Your task to perform on an android device: open device folders in google photos Image 0: 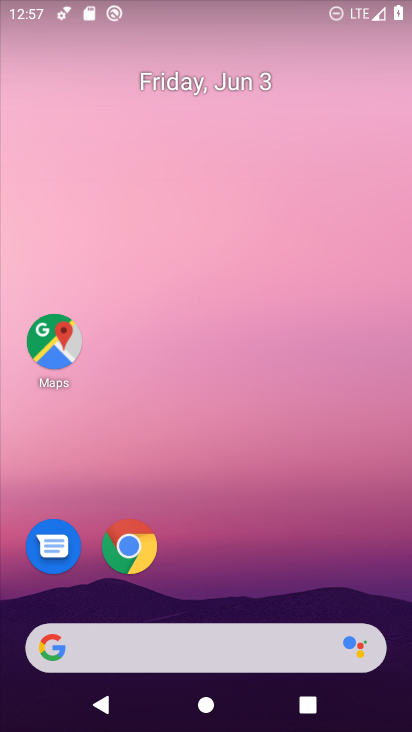
Step 0: drag from (291, 561) to (259, 216)
Your task to perform on an android device: open device folders in google photos Image 1: 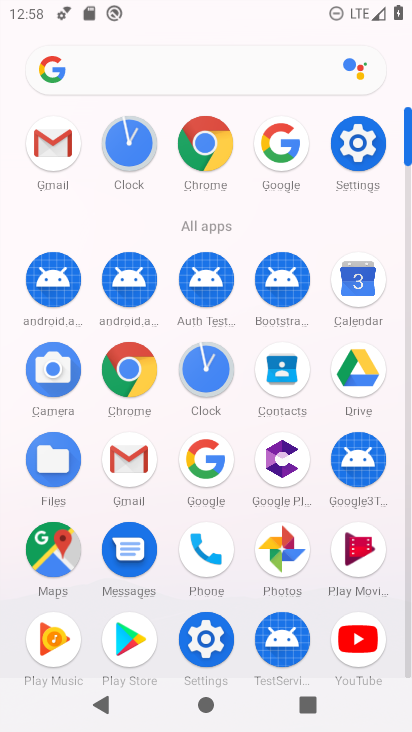
Step 1: click (279, 548)
Your task to perform on an android device: open device folders in google photos Image 2: 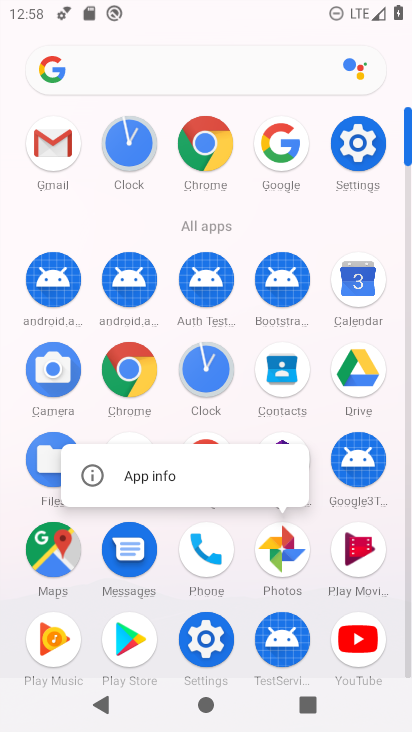
Step 2: click (279, 548)
Your task to perform on an android device: open device folders in google photos Image 3: 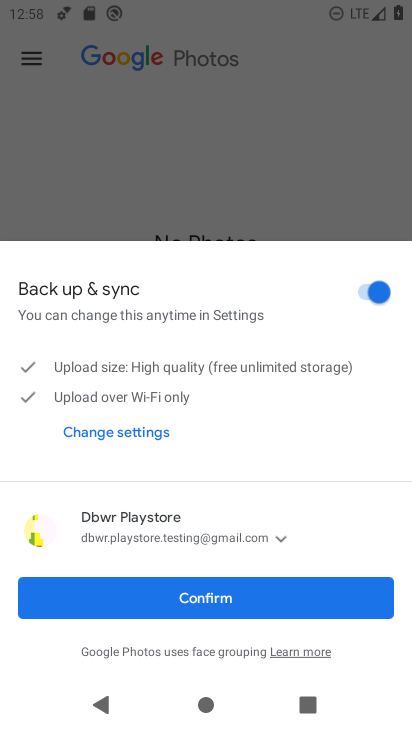
Step 3: click (219, 598)
Your task to perform on an android device: open device folders in google photos Image 4: 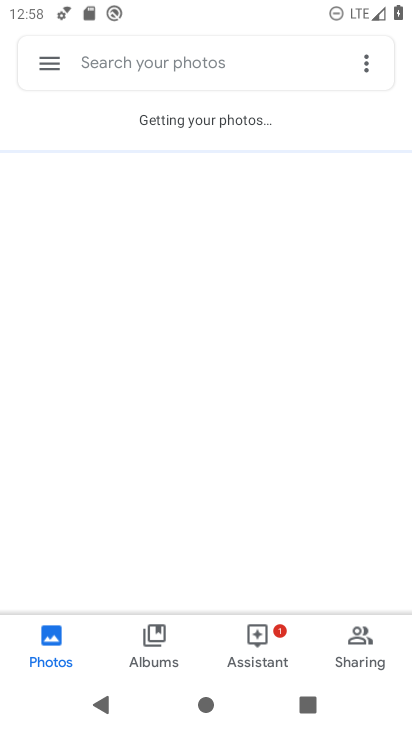
Step 4: click (47, 60)
Your task to perform on an android device: open device folders in google photos Image 5: 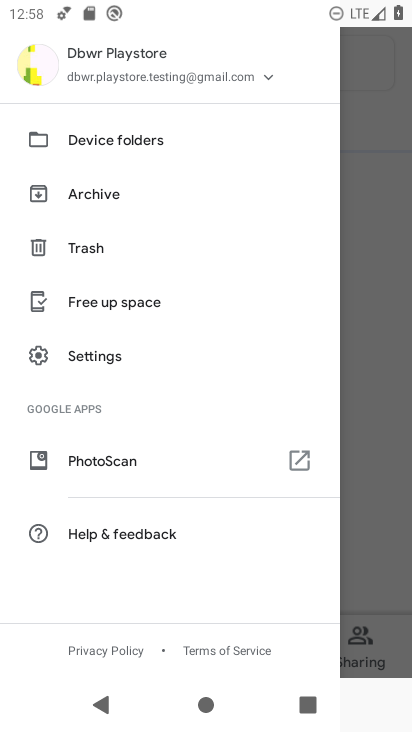
Step 5: click (106, 136)
Your task to perform on an android device: open device folders in google photos Image 6: 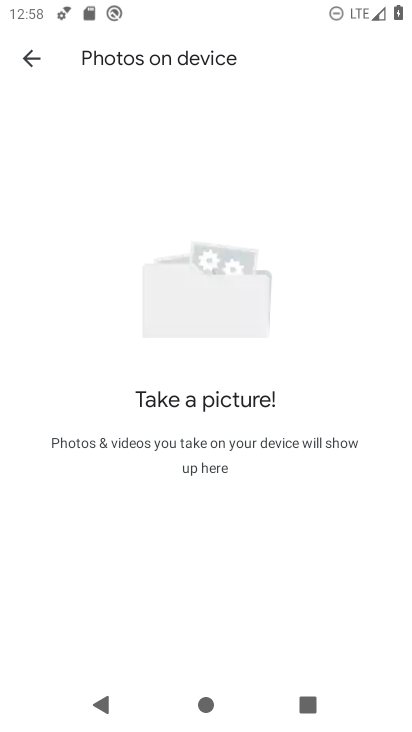
Step 6: task complete